Your task to perform on an android device: turn on the 24-hour format for clock Image 0: 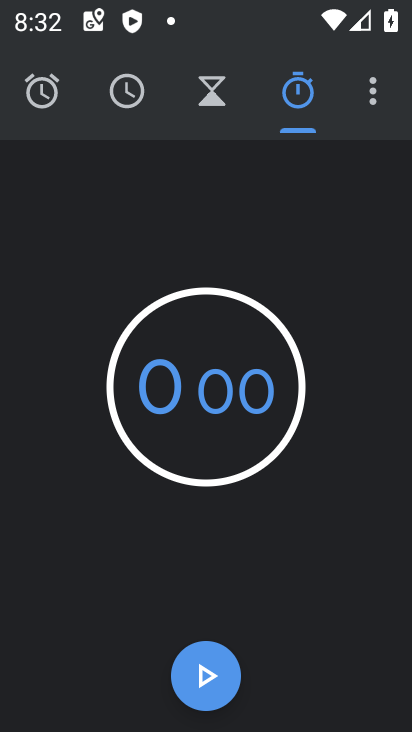
Step 0: press home button
Your task to perform on an android device: turn on the 24-hour format for clock Image 1: 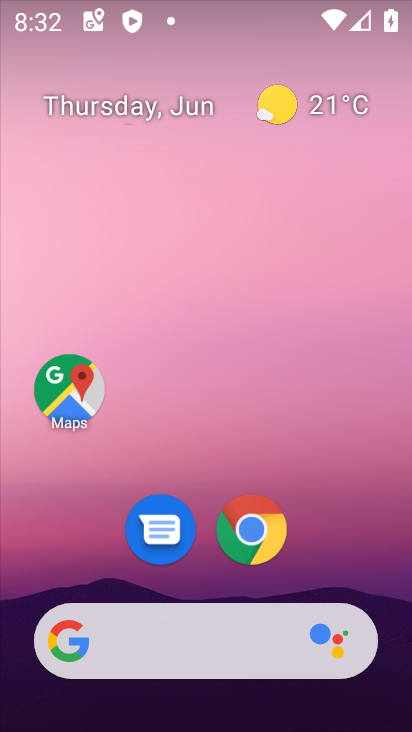
Step 1: drag from (358, 532) to (221, 97)
Your task to perform on an android device: turn on the 24-hour format for clock Image 2: 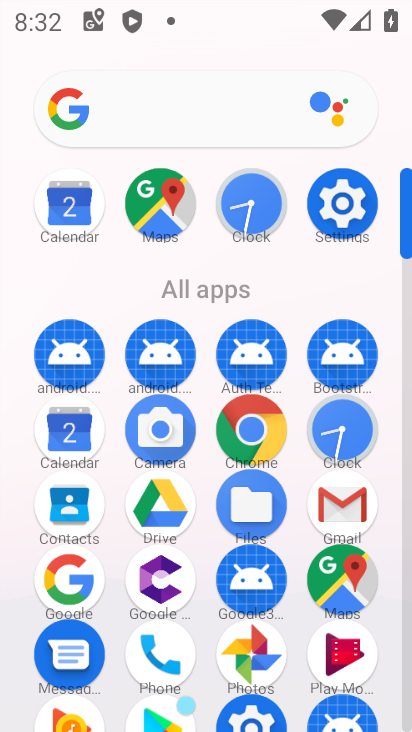
Step 2: click (250, 205)
Your task to perform on an android device: turn on the 24-hour format for clock Image 3: 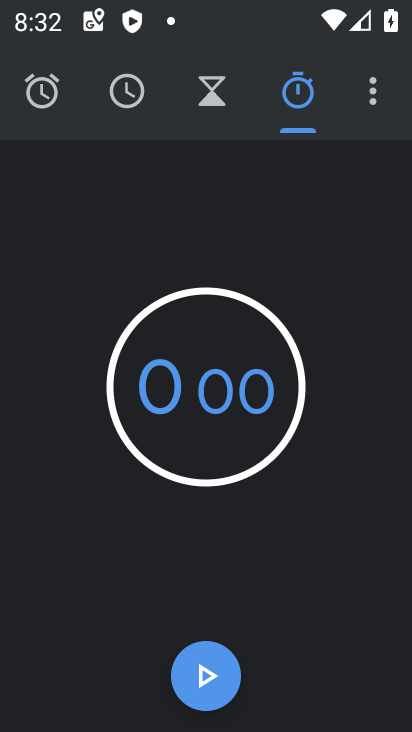
Step 3: click (370, 88)
Your task to perform on an android device: turn on the 24-hour format for clock Image 4: 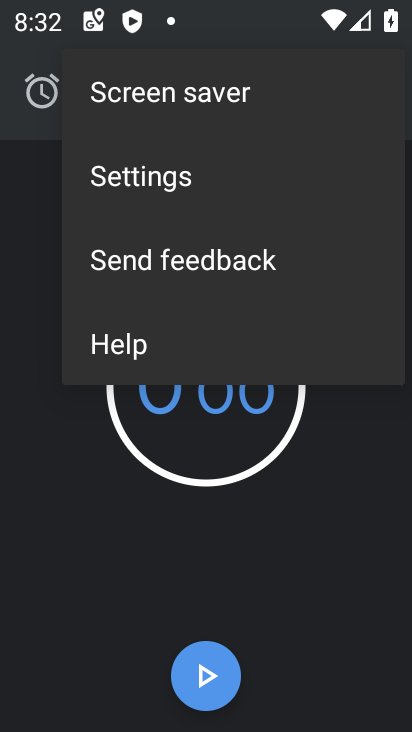
Step 4: click (175, 177)
Your task to perform on an android device: turn on the 24-hour format for clock Image 5: 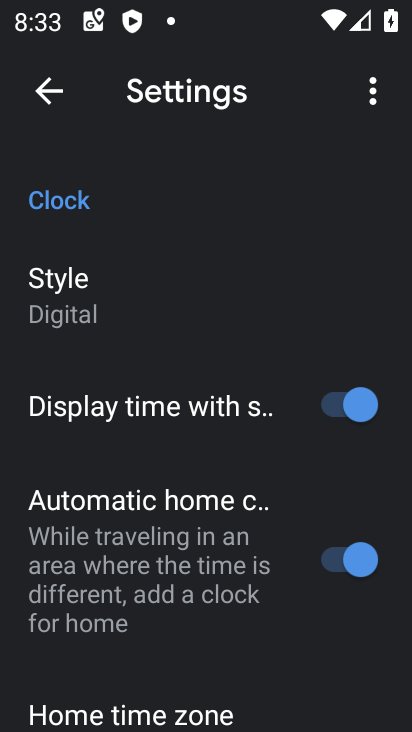
Step 5: drag from (234, 603) to (203, 356)
Your task to perform on an android device: turn on the 24-hour format for clock Image 6: 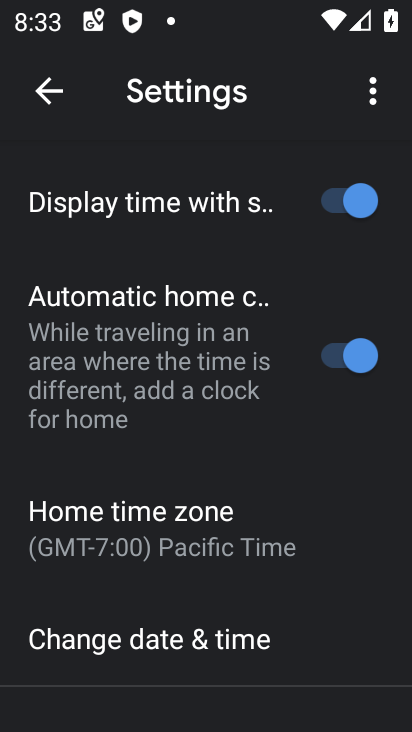
Step 6: click (173, 634)
Your task to perform on an android device: turn on the 24-hour format for clock Image 7: 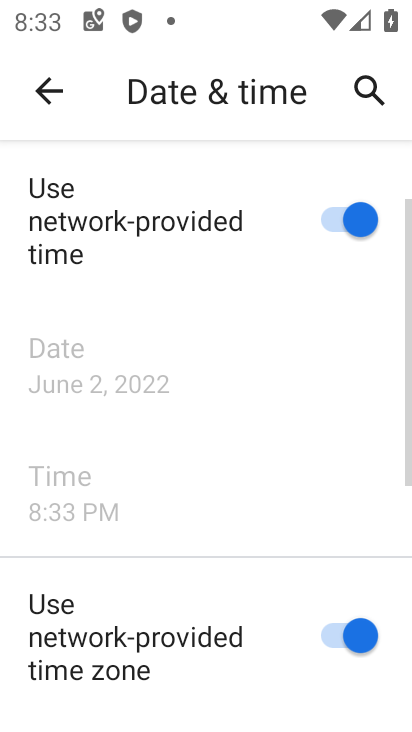
Step 7: drag from (187, 494) to (162, 211)
Your task to perform on an android device: turn on the 24-hour format for clock Image 8: 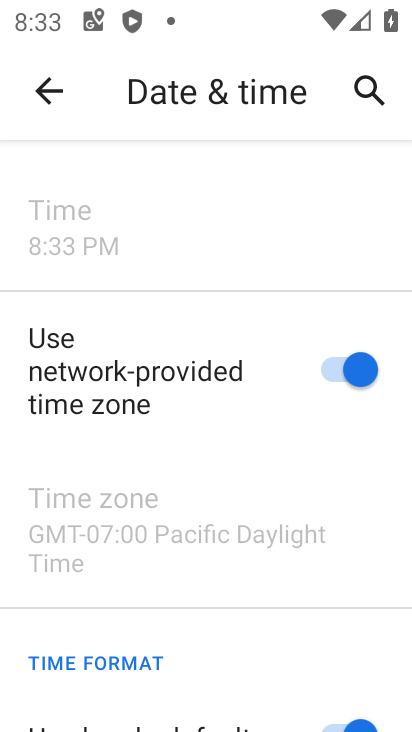
Step 8: drag from (230, 627) to (215, 281)
Your task to perform on an android device: turn on the 24-hour format for clock Image 9: 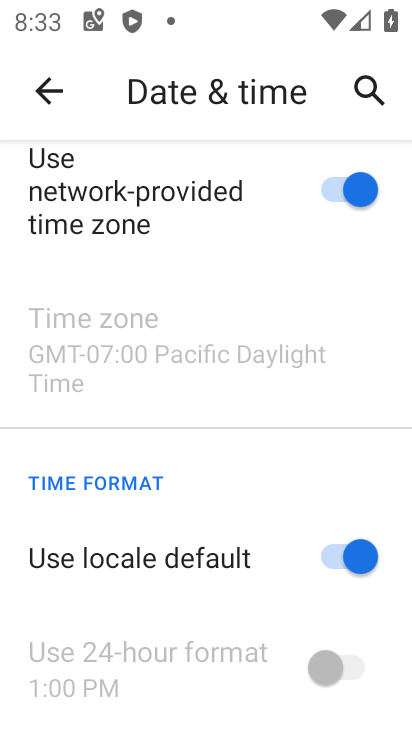
Step 9: click (344, 563)
Your task to perform on an android device: turn on the 24-hour format for clock Image 10: 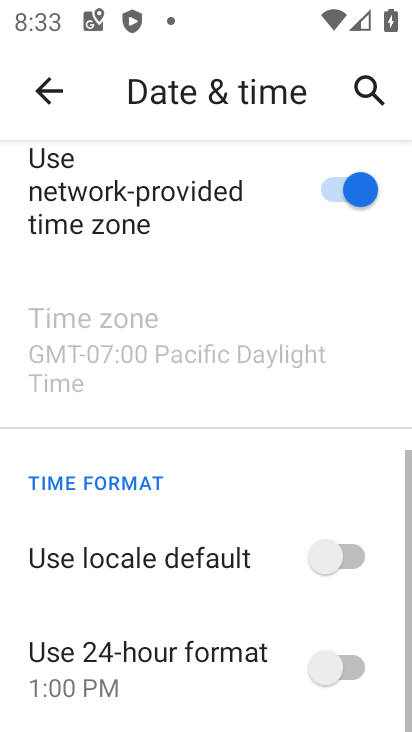
Step 10: click (332, 665)
Your task to perform on an android device: turn on the 24-hour format for clock Image 11: 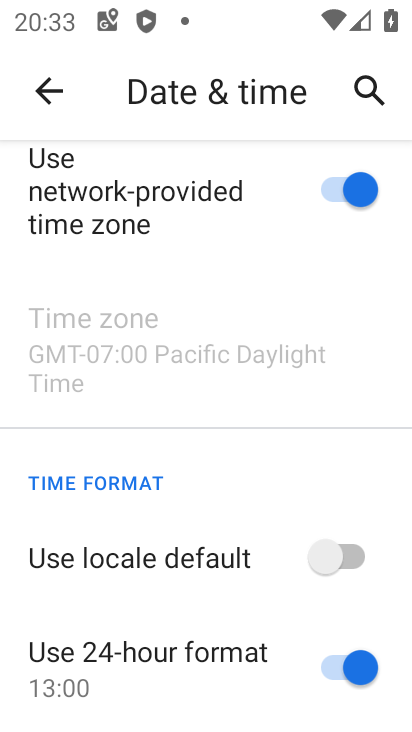
Step 11: task complete